Your task to perform on an android device: Find coffee shops on Maps Image 0: 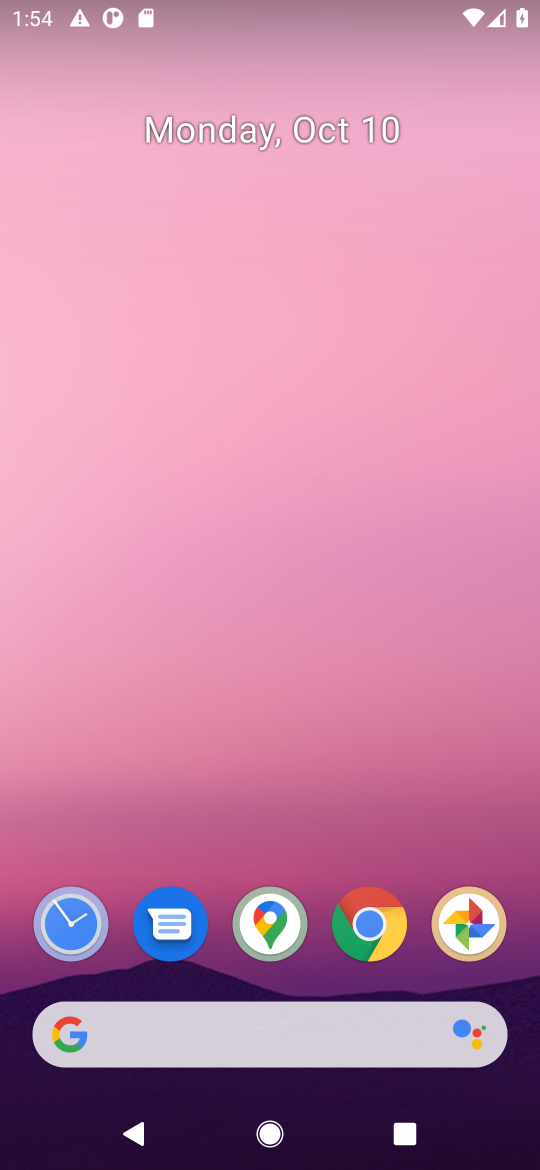
Step 0: click (429, 108)
Your task to perform on an android device: Find coffee shops on Maps Image 1: 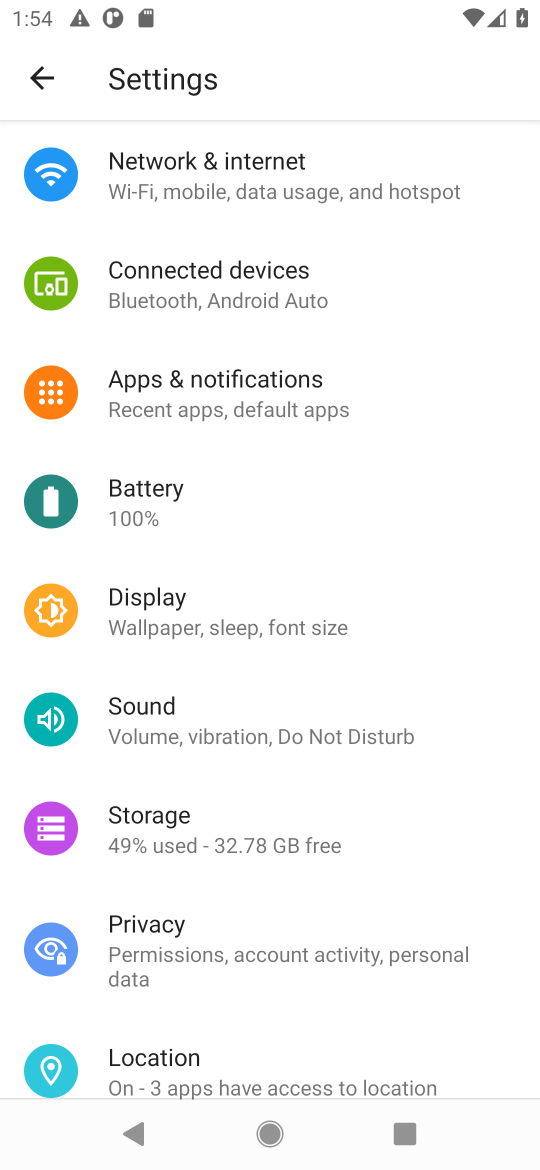
Step 1: press home button
Your task to perform on an android device: Find coffee shops on Maps Image 2: 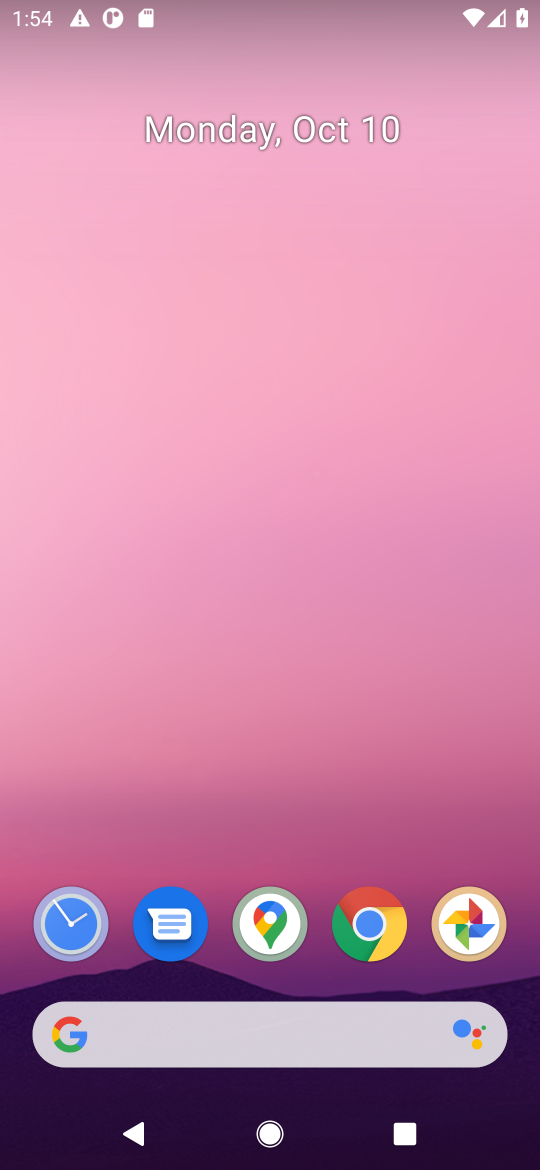
Step 2: drag from (302, 864) to (310, 42)
Your task to perform on an android device: Find coffee shops on Maps Image 3: 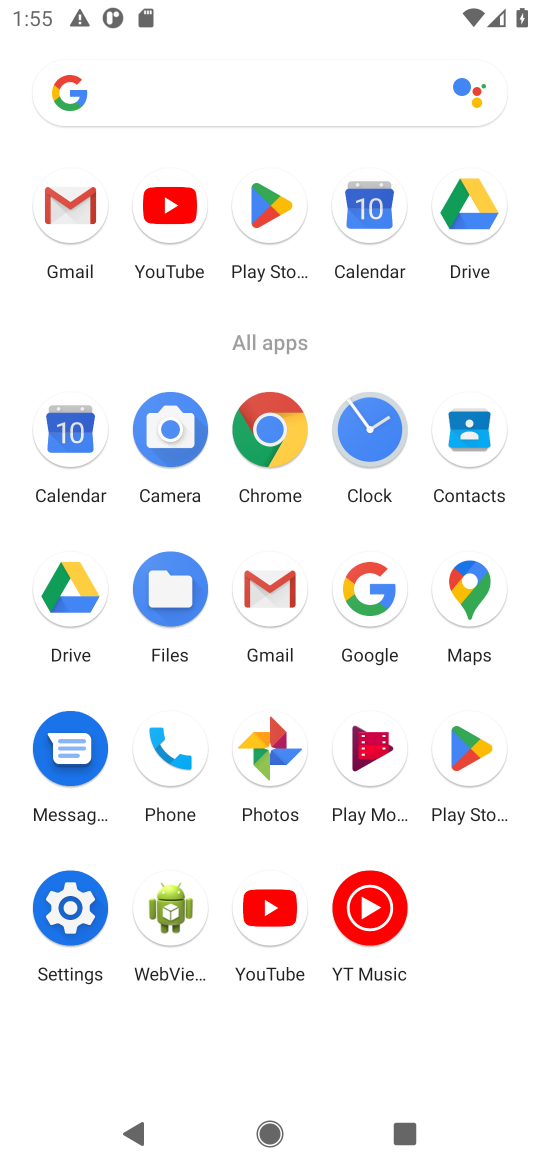
Step 3: click (465, 584)
Your task to perform on an android device: Find coffee shops on Maps Image 4: 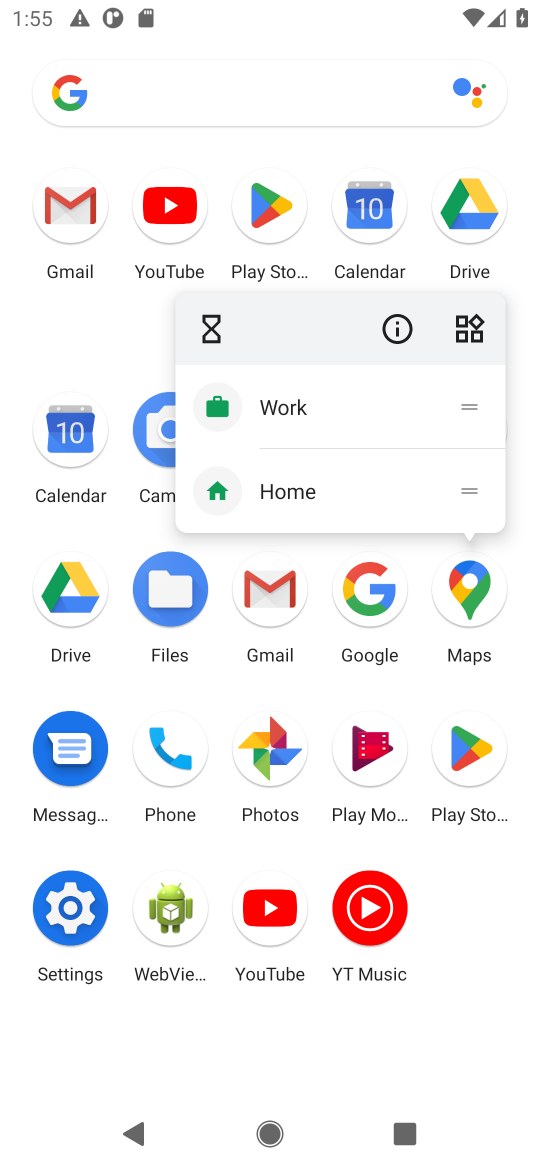
Step 4: click (457, 597)
Your task to perform on an android device: Find coffee shops on Maps Image 5: 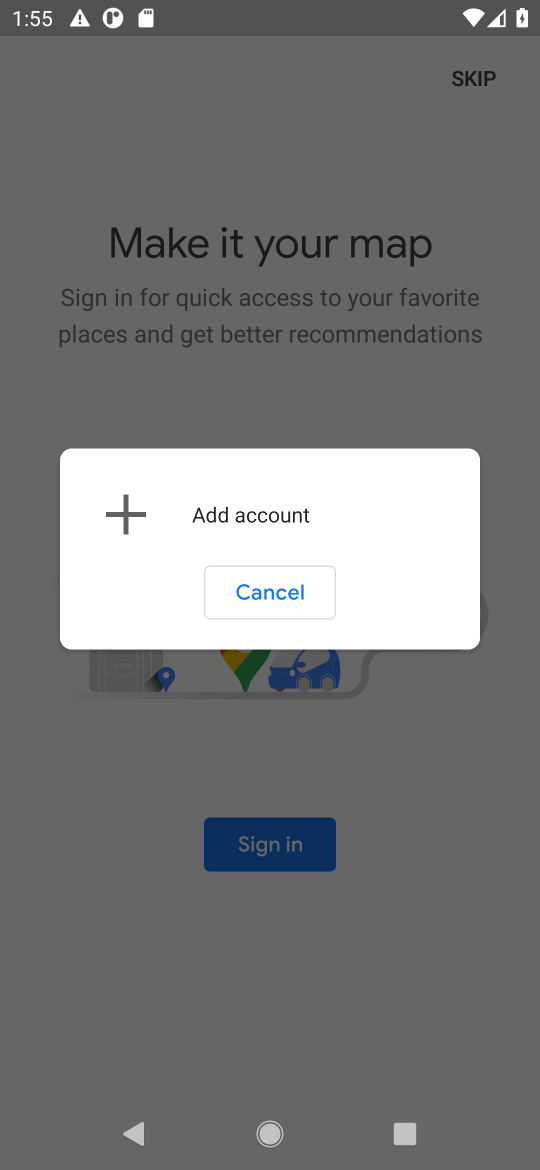
Step 5: click (242, 579)
Your task to perform on an android device: Find coffee shops on Maps Image 6: 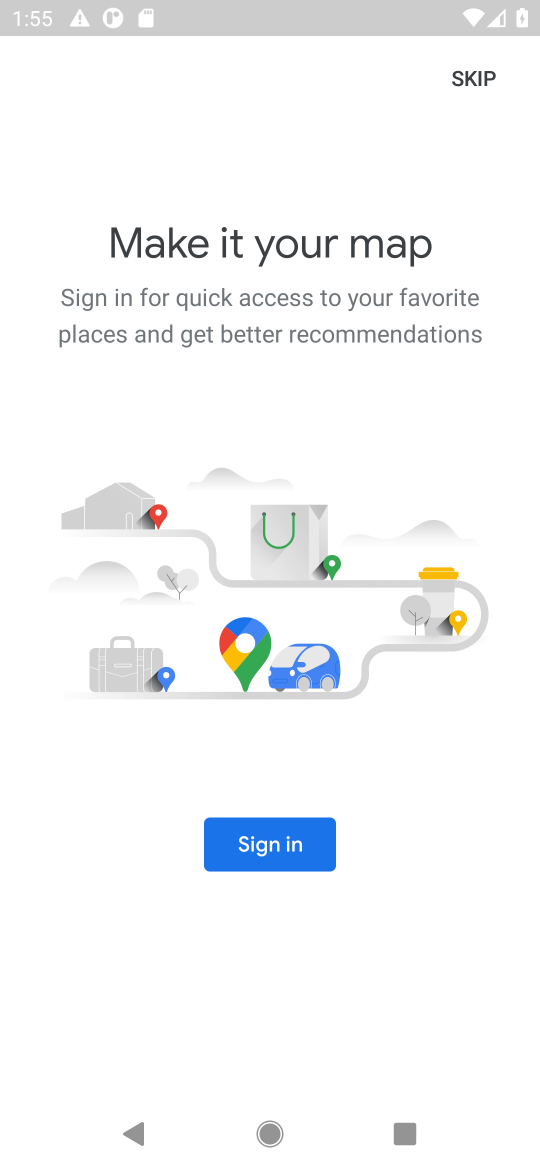
Step 6: click (289, 826)
Your task to perform on an android device: Find coffee shops on Maps Image 7: 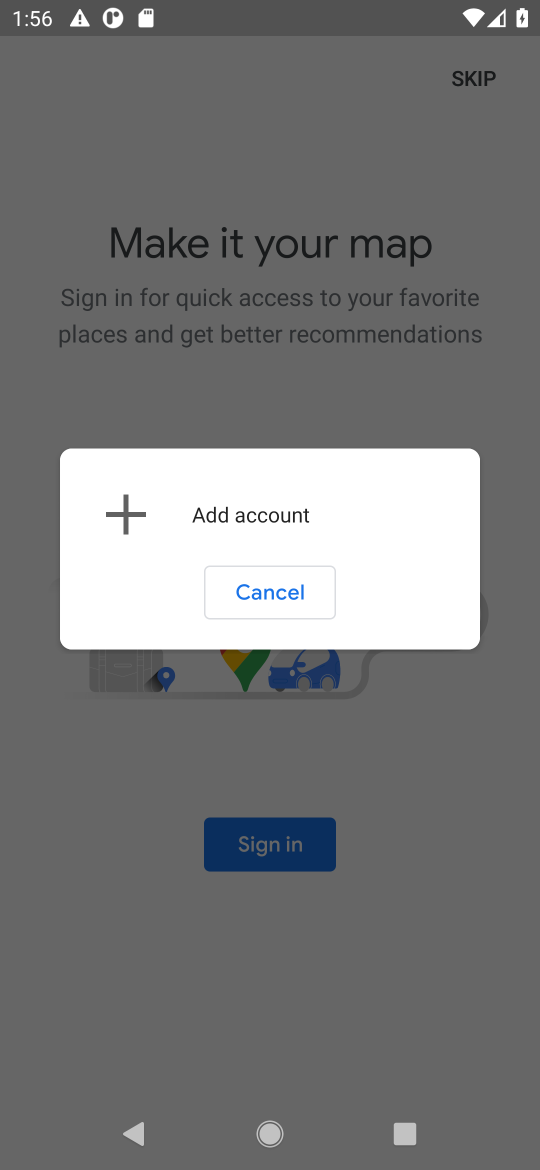
Step 7: task complete